Your task to perform on an android device: set the timer Image 0: 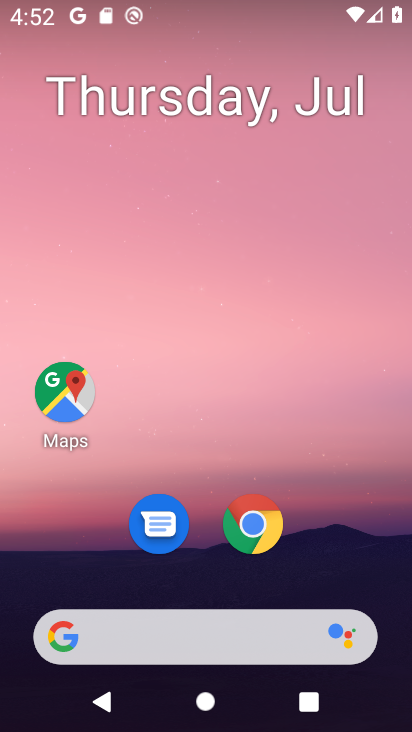
Step 0: drag from (216, 632) to (124, 2)
Your task to perform on an android device: set the timer Image 1: 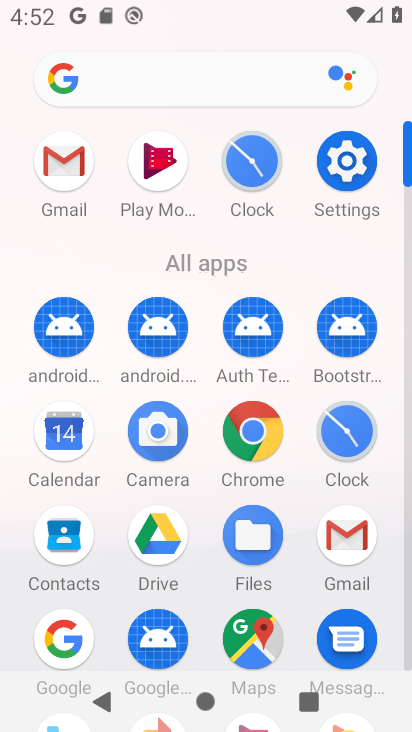
Step 1: click (338, 427)
Your task to perform on an android device: set the timer Image 2: 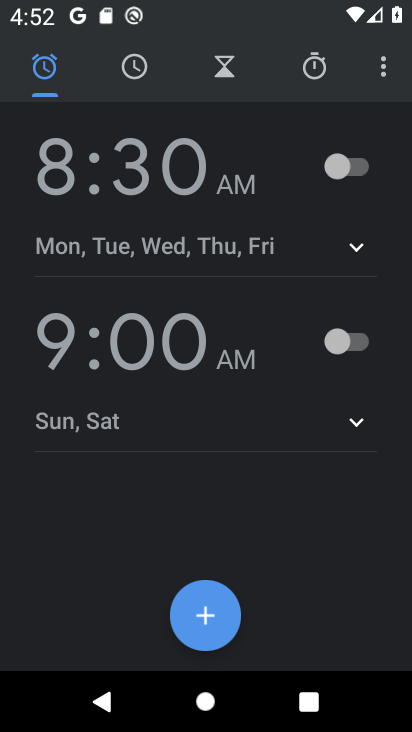
Step 2: click (223, 77)
Your task to perform on an android device: set the timer Image 3: 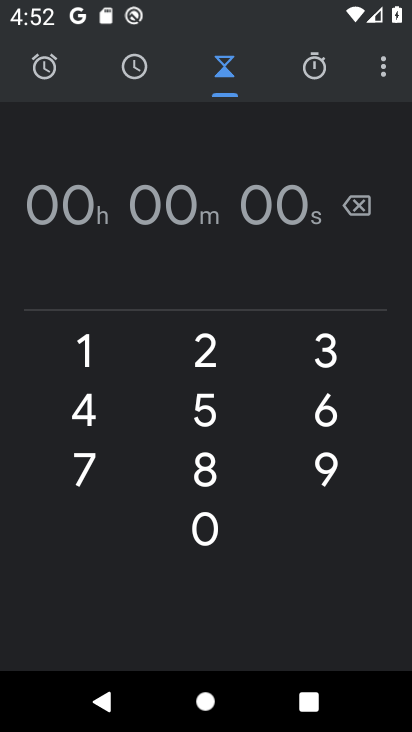
Step 3: click (222, 409)
Your task to perform on an android device: set the timer Image 4: 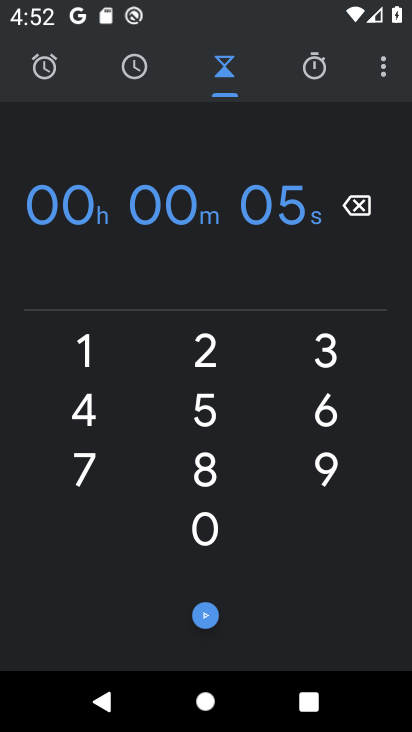
Step 4: click (201, 452)
Your task to perform on an android device: set the timer Image 5: 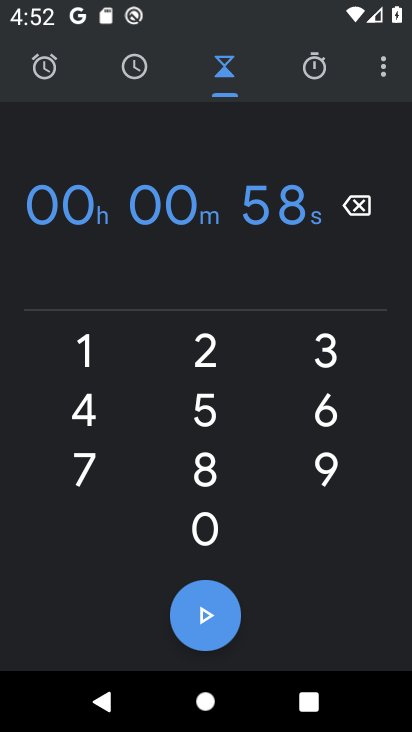
Step 5: click (203, 519)
Your task to perform on an android device: set the timer Image 6: 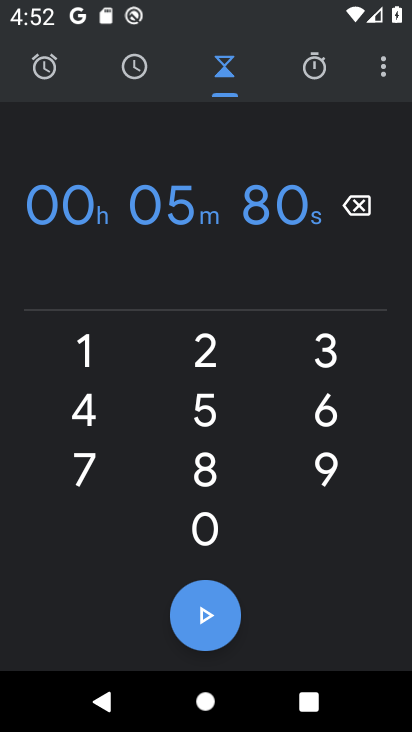
Step 6: click (210, 597)
Your task to perform on an android device: set the timer Image 7: 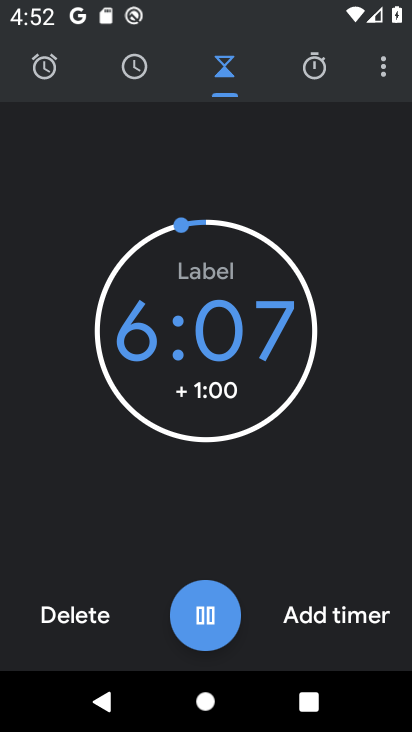
Step 7: task complete